Your task to perform on an android device: What's the weather going to be this weekend? Image 0: 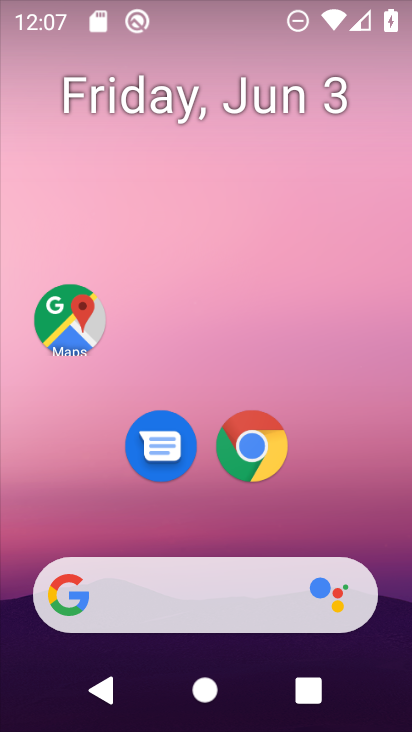
Step 0: drag from (221, 320) to (178, 0)
Your task to perform on an android device: What's the weather going to be this weekend? Image 1: 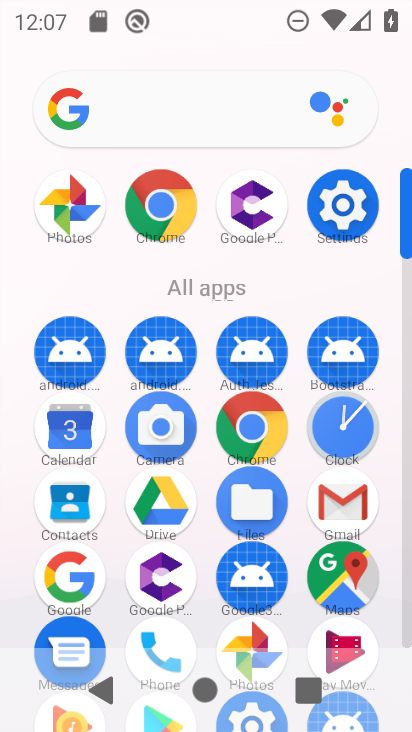
Step 1: task complete